Your task to perform on an android device: Open Google Maps Image 0: 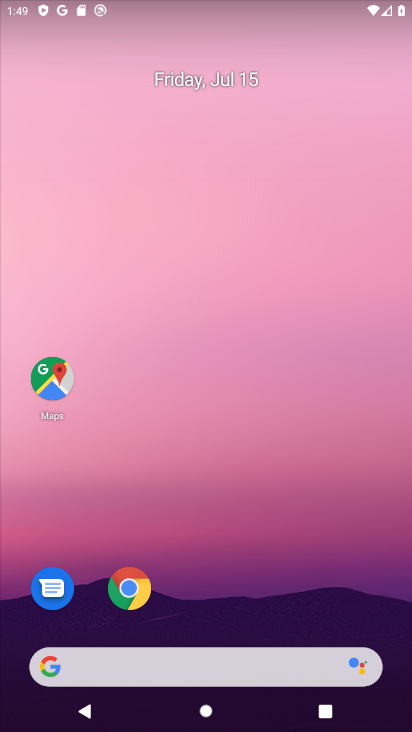
Step 0: click (60, 389)
Your task to perform on an android device: Open Google Maps Image 1: 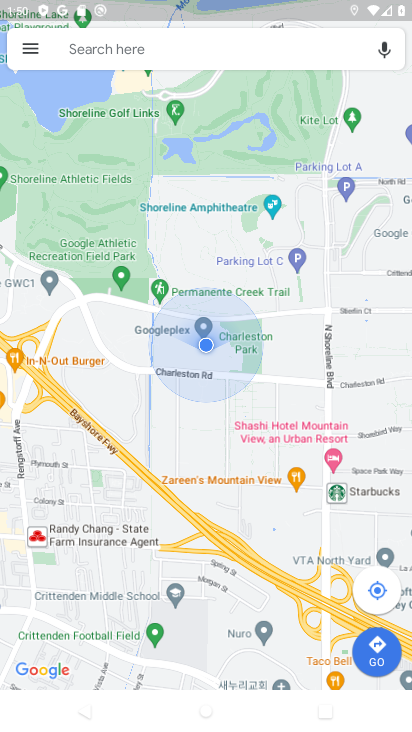
Step 1: task complete